Your task to perform on an android device: turn notification dots on Image 0: 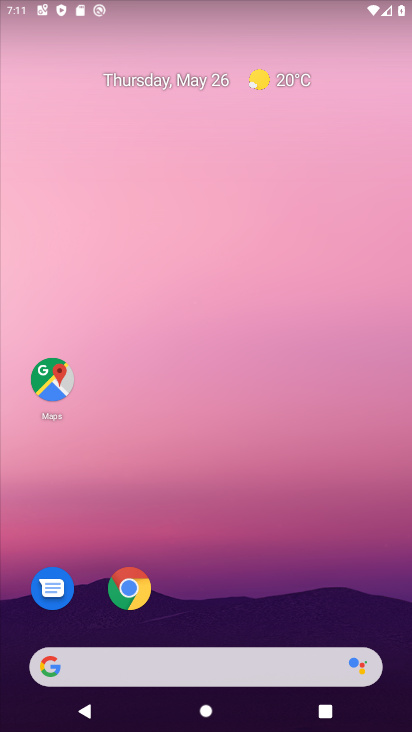
Step 0: drag from (350, 622) to (320, 18)
Your task to perform on an android device: turn notification dots on Image 1: 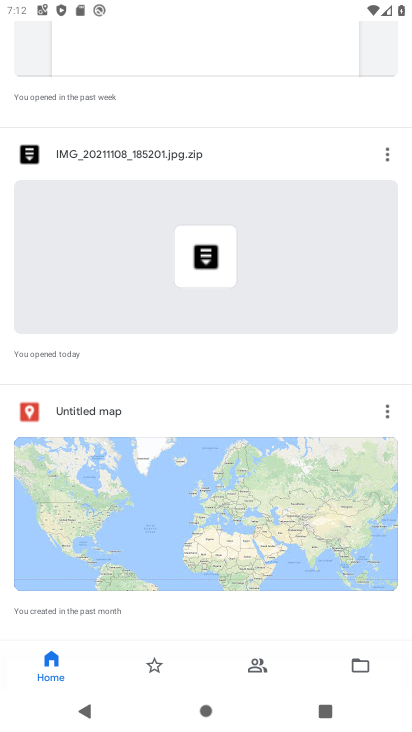
Step 1: press home button
Your task to perform on an android device: turn notification dots on Image 2: 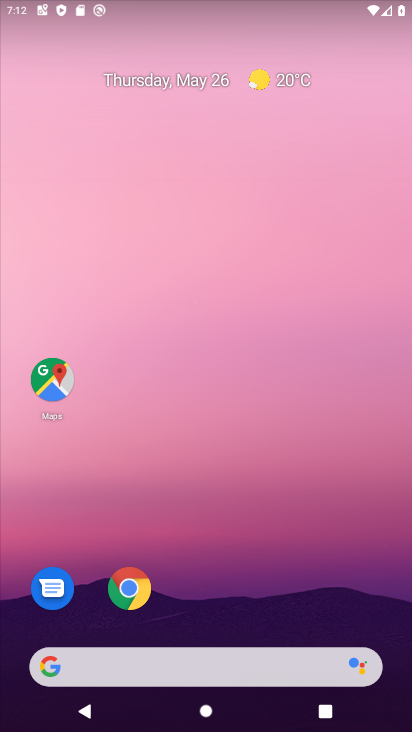
Step 2: drag from (330, 592) to (274, 5)
Your task to perform on an android device: turn notification dots on Image 3: 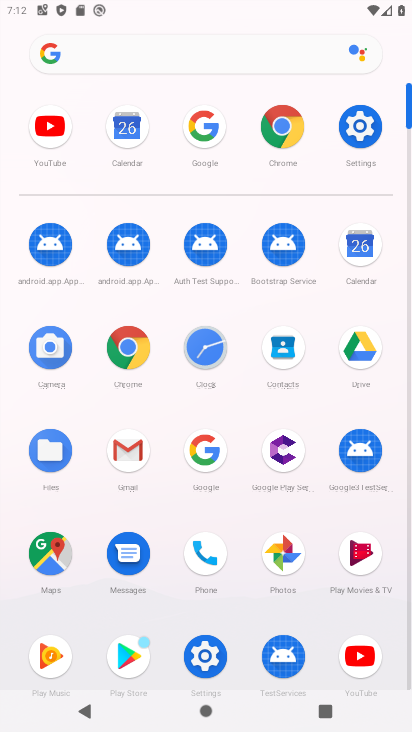
Step 3: click (364, 118)
Your task to perform on an android device: turn notification dots on Image 4: 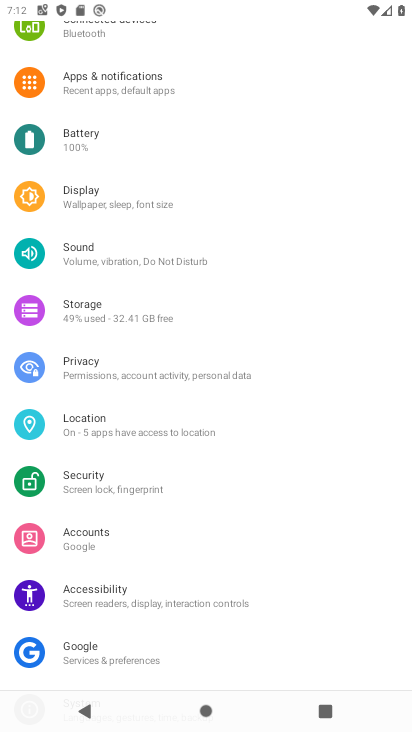
Step 4: click (162, 97)
Your task to perform on an android device: turn notification dots on Image 5: 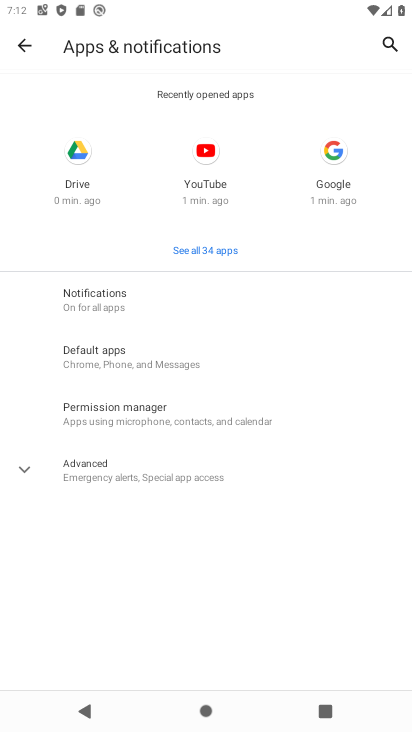
Step 5: click (180, 303)
Your task to perform on an android device: turn notification dots on Image 6: 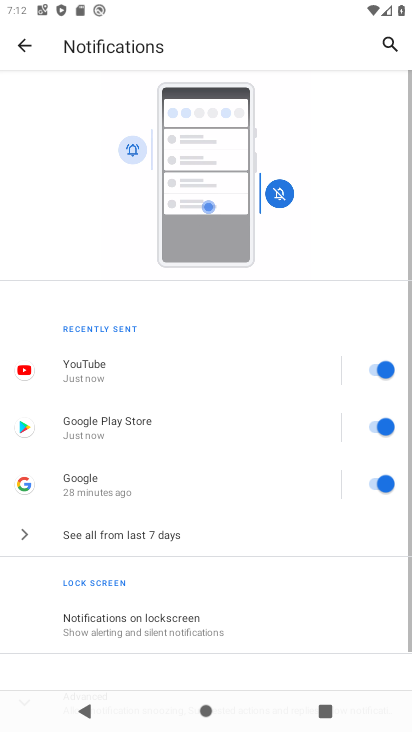
Step 6: drag from (244, 603) to (223, 63)
Your task to perform on an android device: turn notification dots on Image 7: 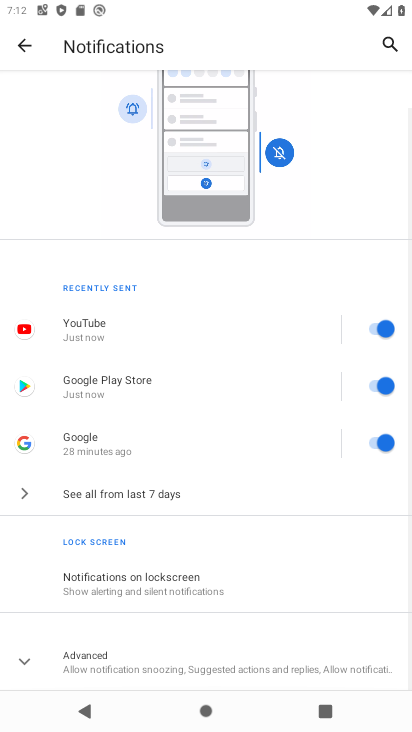
Step 7: click (182, 646)
Your task to perform on an android device: turn notification dots on Image 8: 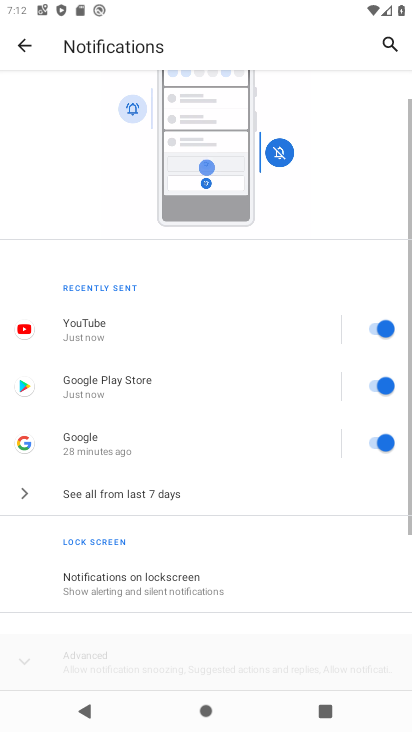
Step 8: task complete